Your task to perform on an android device: change timer sound Image 0: 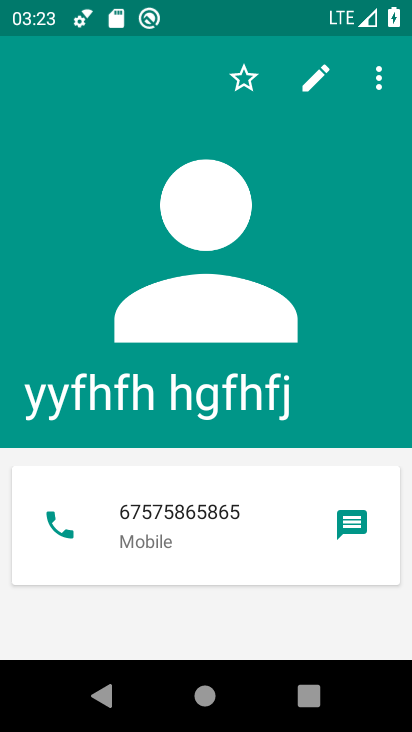
Step 0: press home button
Your task to perform on an android device: change timer sound Image 1: 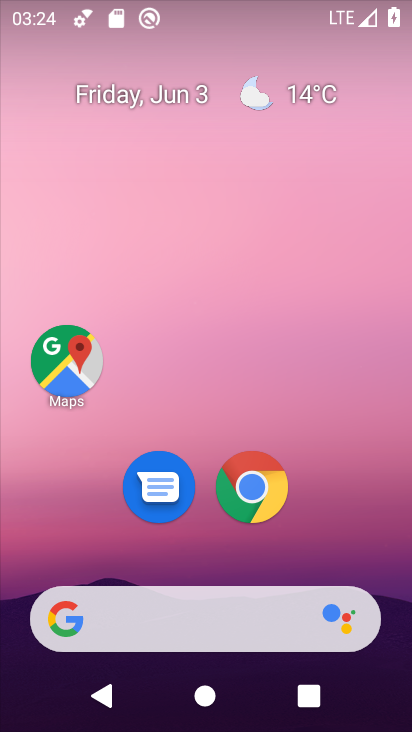
Step 1: drag from (317, 560) to (76, 12)
Your task to perform on an android device: change timer sound Image 2: 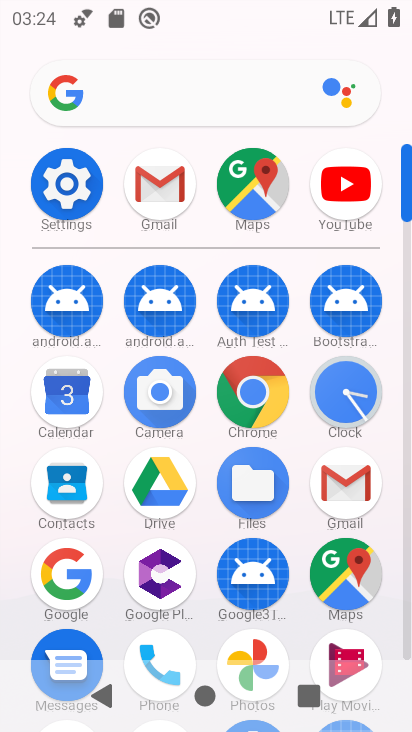
Step 2: click (353, 385)
Your task to perform on an android device: change timer sound Image 3: 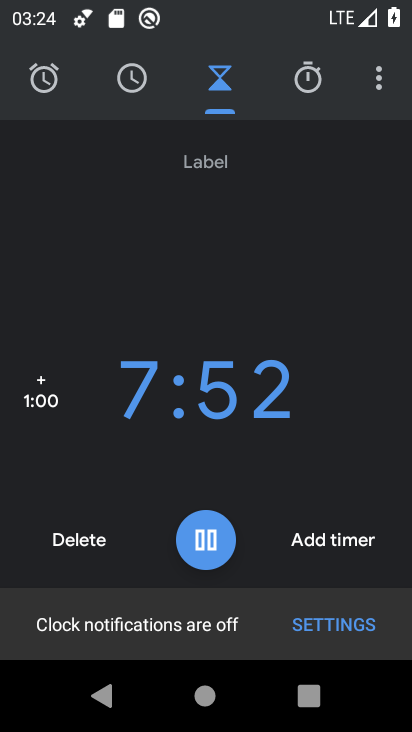
Step 3: click (376, 82)
Your task to perform on an android device: change timer sound Image 4: 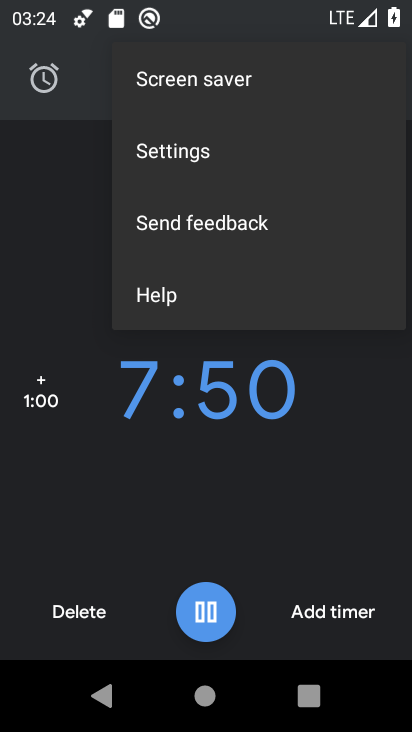
Step 4: click (203, 136)
Your task to perform on an android device: change timer sound Image 5: 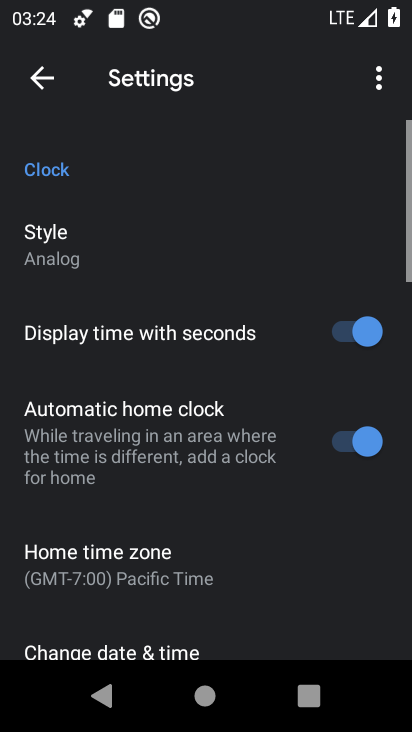
Step 5: drag from (218, 542) to (207, 56)
Your task to perform on an android device: change timer sound Image 6: 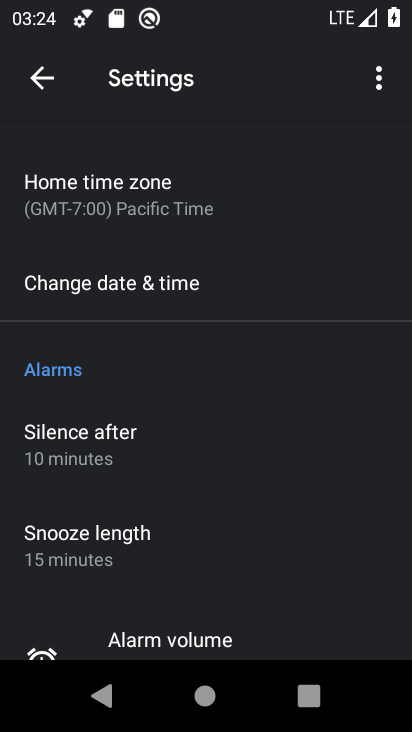
Step 6: drag from (234, 550) to (182, 18)
Your task to perform on an android device: change timer sound Image 7: 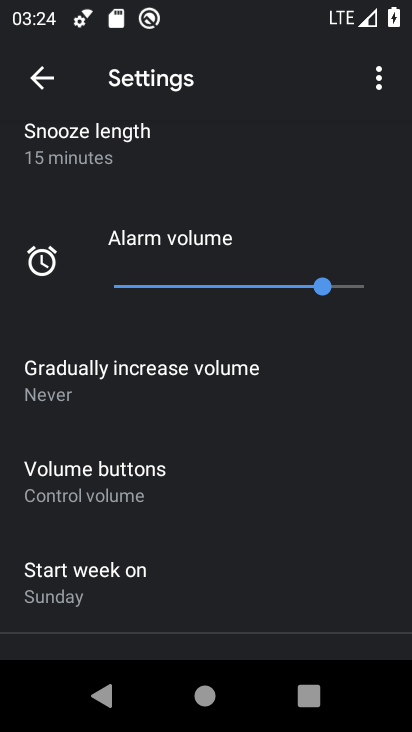
Step 7: drag from (236, 477) to (127, 0)
Your task to perform on an android device: change timer sound Image 8: 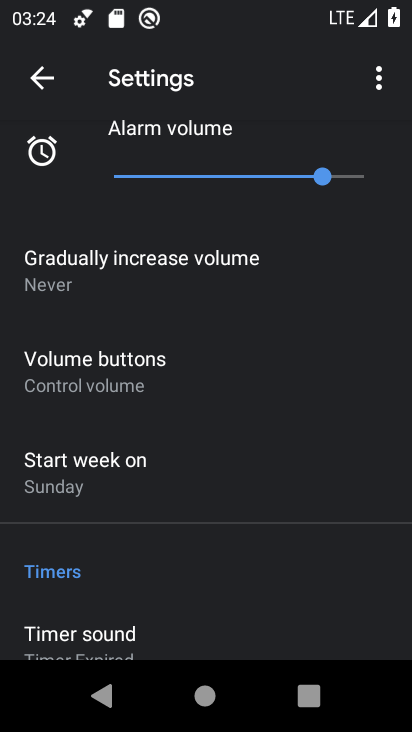
Step 8: click (170, 632)
Your task to perform on an android device: change timer sound Image 9: 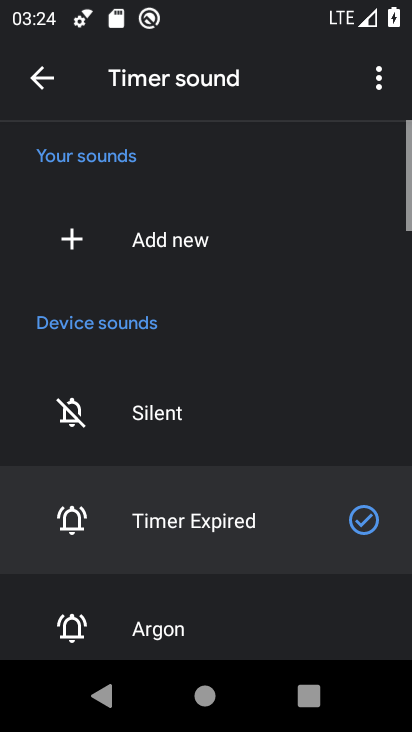
Step 9: click (260, 613)
Your task to perform on an android device: change timer sound Image 10: 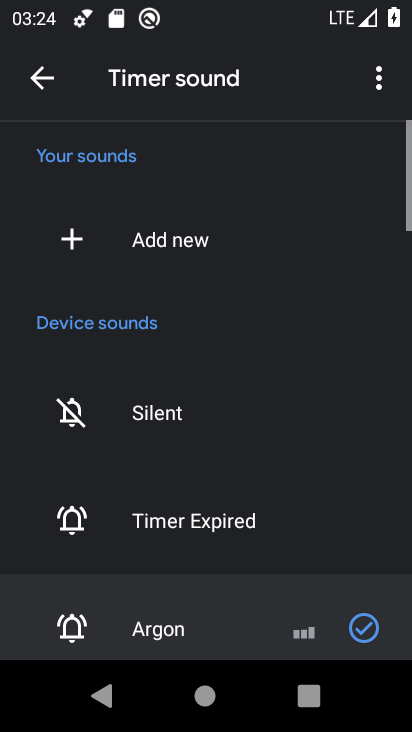
Step 10: task complete